Your task to perform on an android device: snooze an email in the gmail app Image 0: 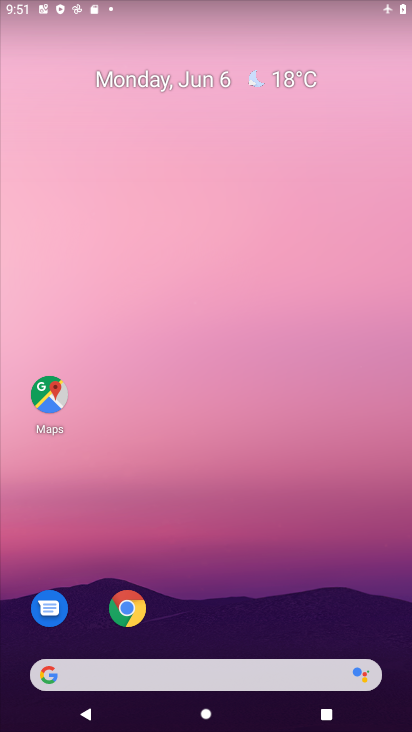
Step 0: drag from (287, 576) to (192, 91)
Your task to perform on an android device: snooze an email in the gmail app Image 1: 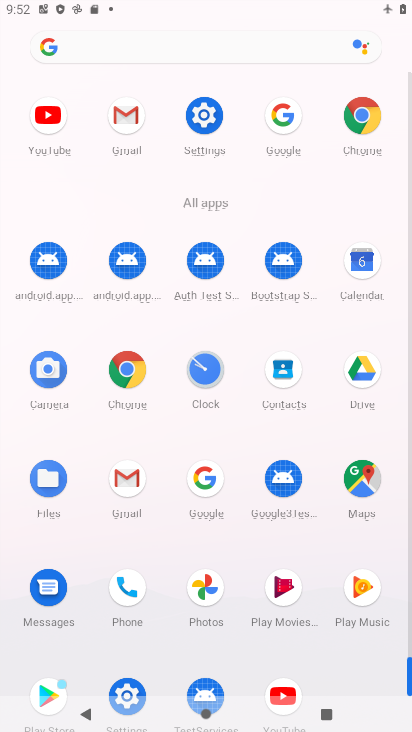
Step 1: click (125, 113)
Your task to perform on an android device: snooze an email in the gmail app Image 2: 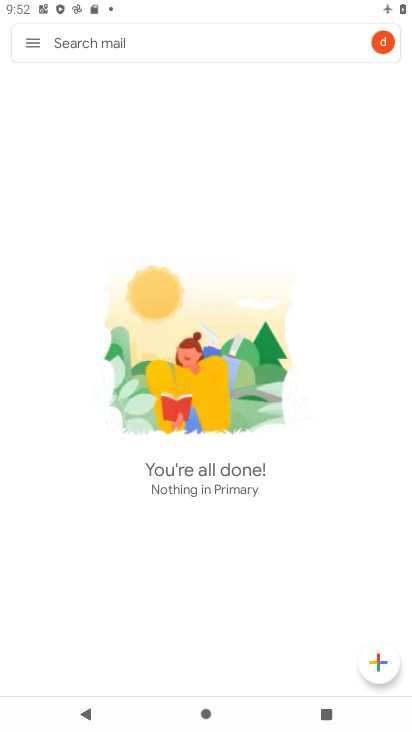
Step 2: click (33, 42)
Your task to perform on an android device: snooze an email in the gmail app Image 3: 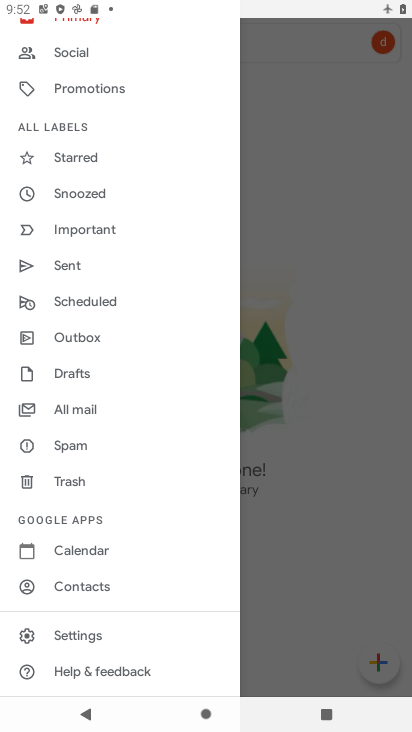
Step 3: drag from (97, 438) to (102, 341)
Your task to perform on an android device: snooze an email in the gmail app Image 4: 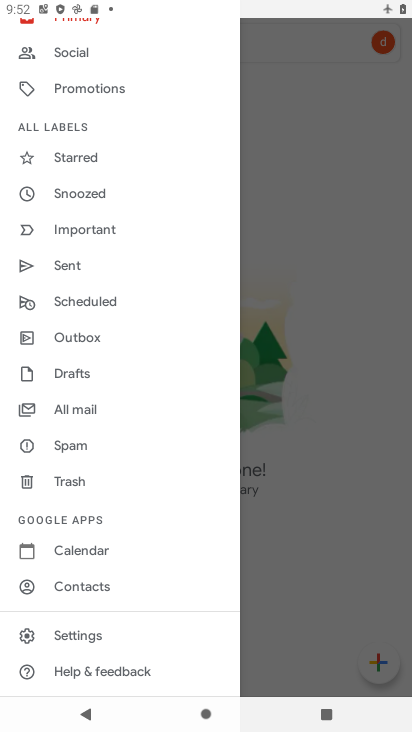
Step 4: drag from (88, 278) to (102, 389)
Your task to perform on an android device: snooze an email in the gmail app Image 5: 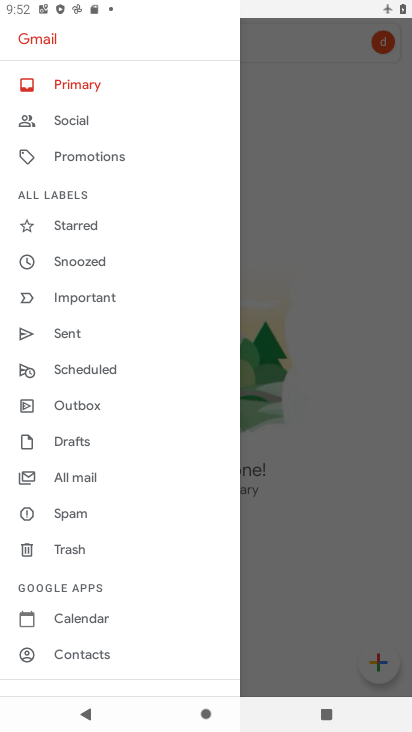
Step 5: click (81, 468)
Your task to perform on an android device: snooze an email in the gmail app Image 6: 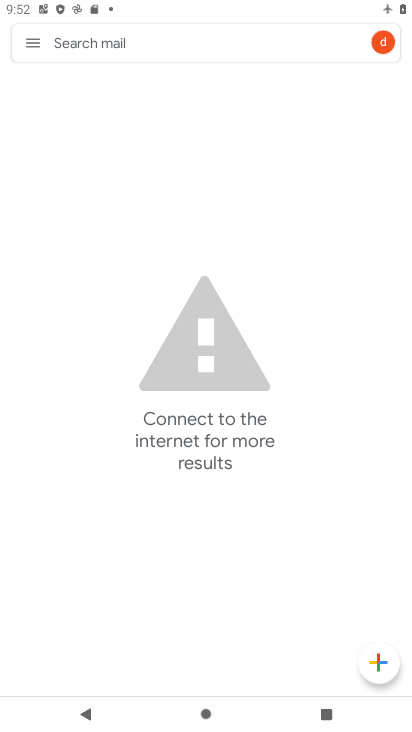
Step 6: click (31, 42)
Your task to perform on an android device: snooze an email in the gmail app Image 7: 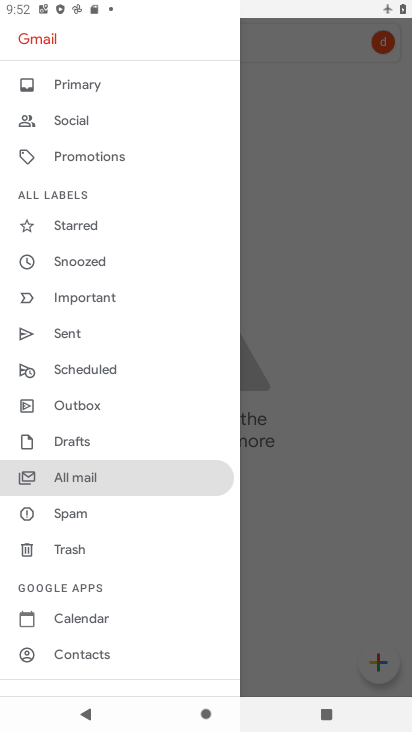
Step 7: drag from (101, 340) to (118, 437)
Your task to perform on an android device: snooze an email in the gmail app Image 8: 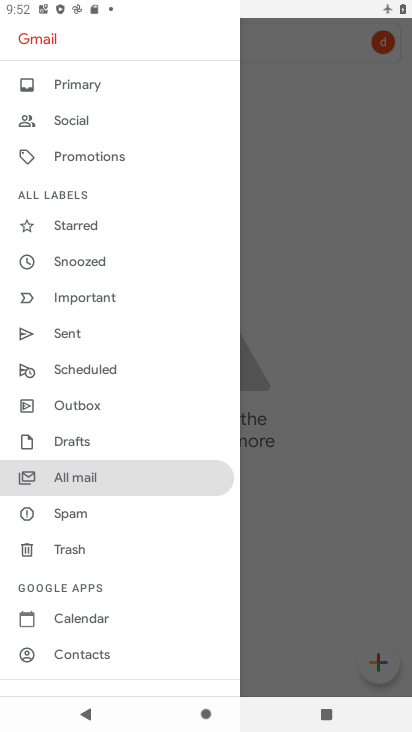
Step 8: click (81, 262)
Your task to perform on an android device: snooze an email in the gmail app Image 9: 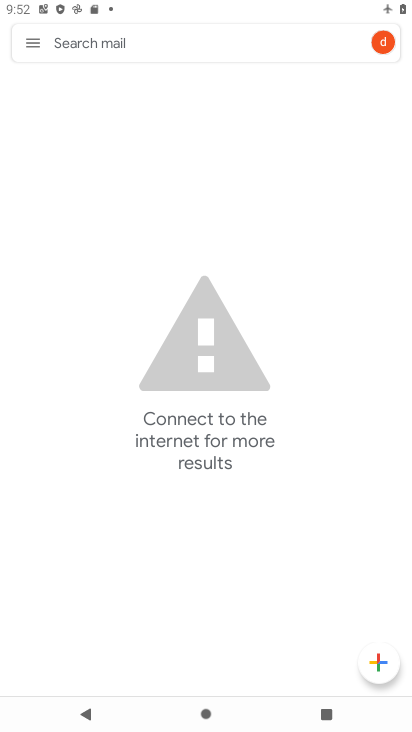
Step 9: task complete